Your task to perform on an android device: Open settings on Google Maps Image 0: 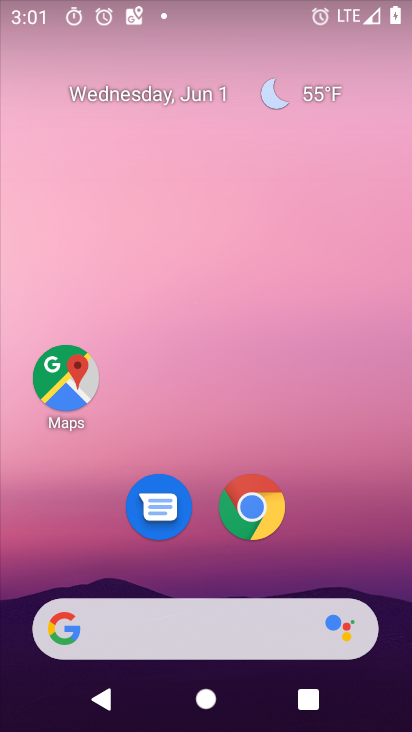
Step 0: click (196, 420)
Your task to perform on an android device: Open settings on Google Maps Image 1: 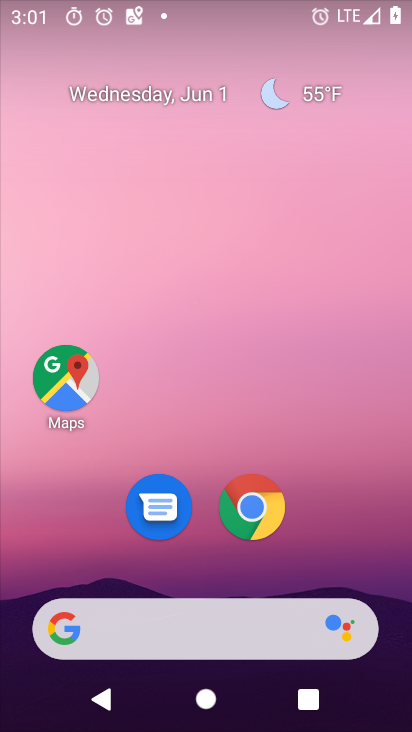
Step 1: click (66, 379)
Your task to perform on an android device: Open settings on Google Maps Image 2: 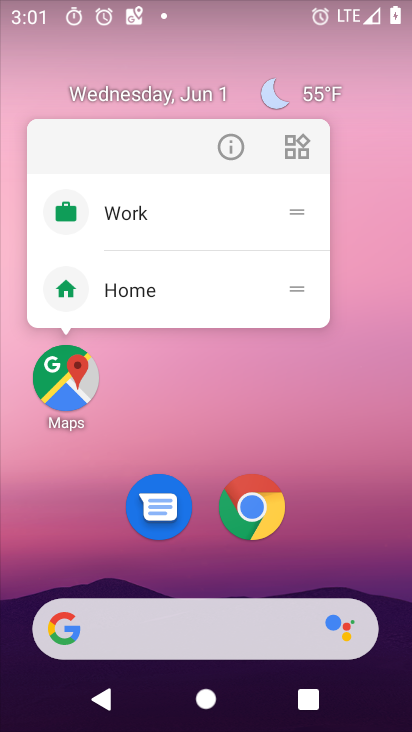
Step 2: click (73, 379)
Your task to perform on an android device: Open settings on Google Maps Image 3: 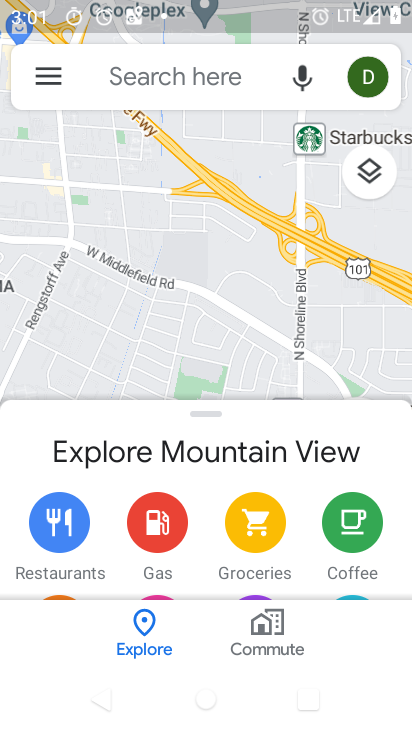
Step 3: click (41, 77)
Your task to perform on an android device: Open settings on Google Maps Image 4: 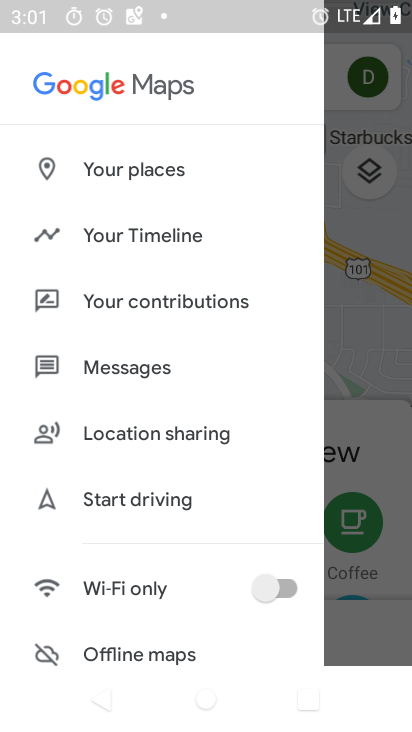
Step 4: drag from (161, 548) to (145, 33)
Your task to perform on an android device: Open settings on Google Maps Image 5: 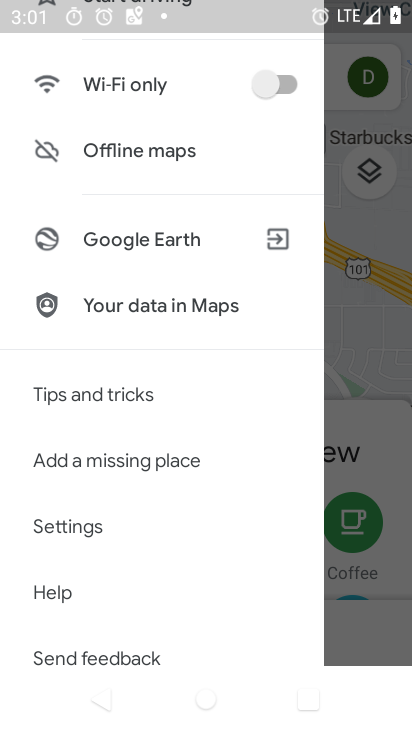
Step 5: drag from (94, 491) to (115, 206)
Your task to perform on an android device: Open settings on Google Maps Image 6: 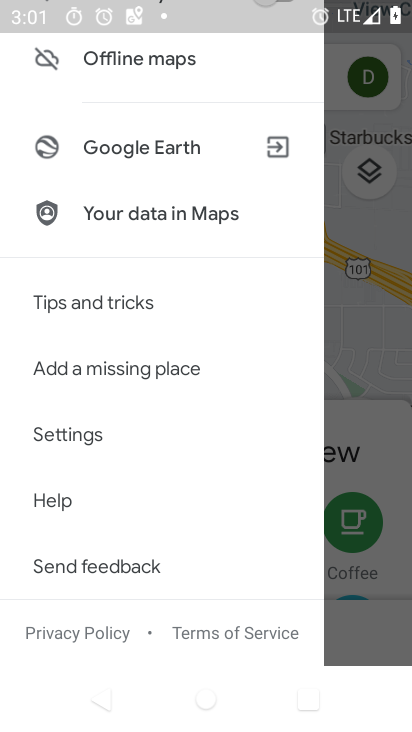
Step 6: click (49, 437)
Your task to perform on an android device: Open settings on Google Maps Image 7: 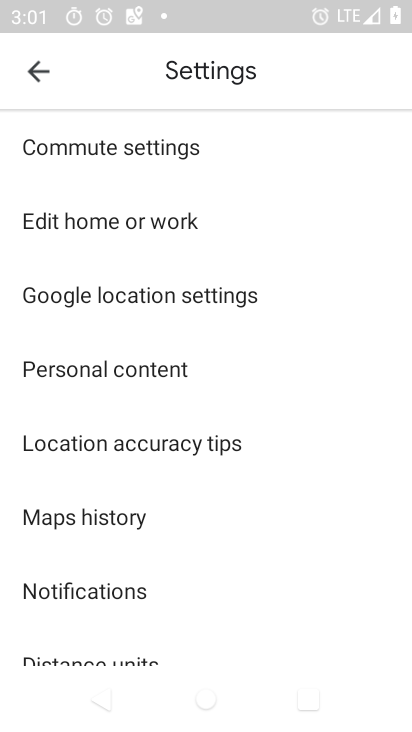
Step 7: task complete